Your task to perform on an android device: Show me the alarms in the clock app Image 0: 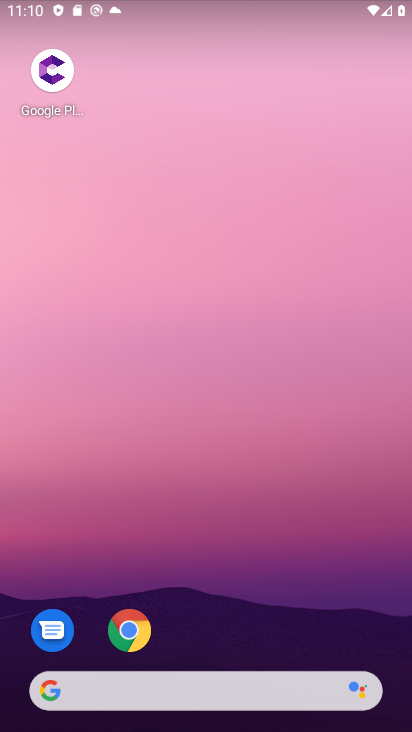
Step 0: drag from (196, 581) to (271, 94)
Your task to perform on an android device: Show me the alarms in the clock app Image 1: 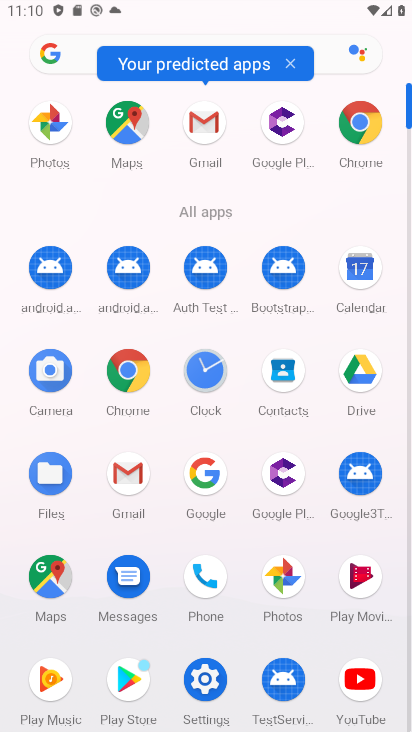
Step 1: click (202, 374)
Your task to perform on an android device: Show me the alarms in the clock app Image 2: 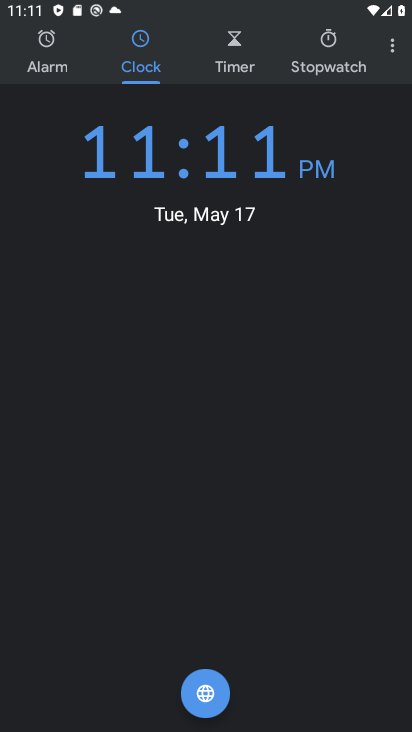
Step 2: click (52, 62)
Your task to perform on an android device: Show me the alarms in the clock app Image 3: 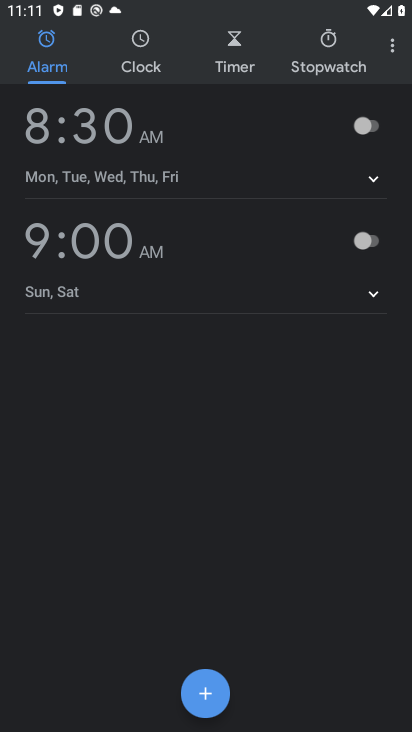
Step 3: task complete